Your task to perform on an android device: open a bookmark in the chrome app Image 0: 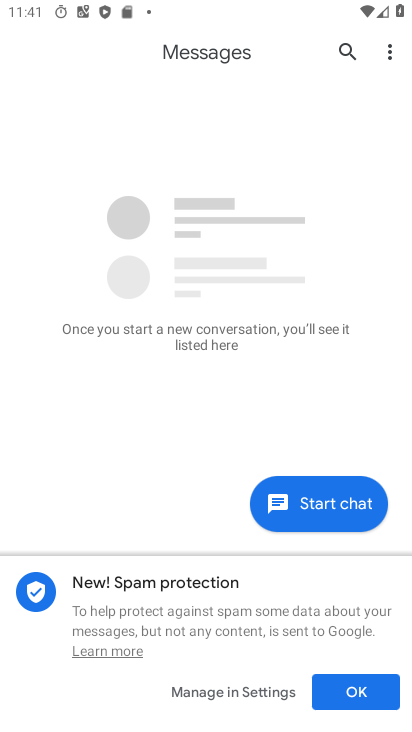
Step 0: press home button
Your task to perform on an android device: open a bookmark in the chrome app Image 1: 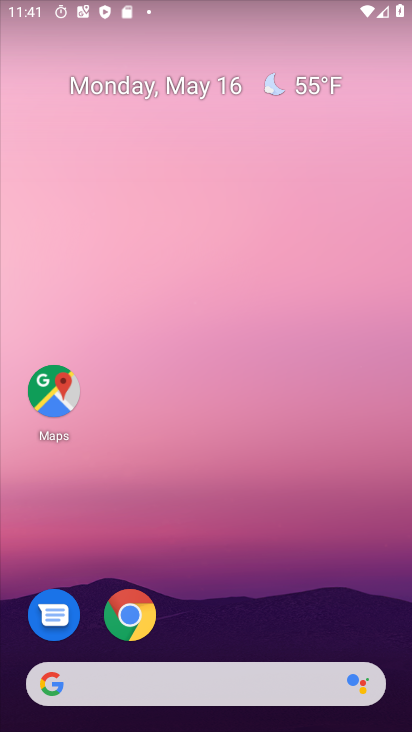
Step 1: click (149, 622)
Your task to perform on an android device: open a bookmark in the chrome app Image 2: 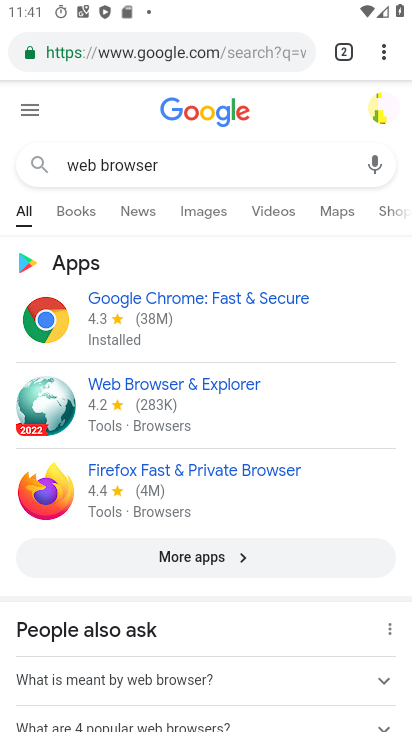
Step 2: task complete